Your task to perform on an android device: Open the Play Movies app and select the watchlist tab. Image 0: 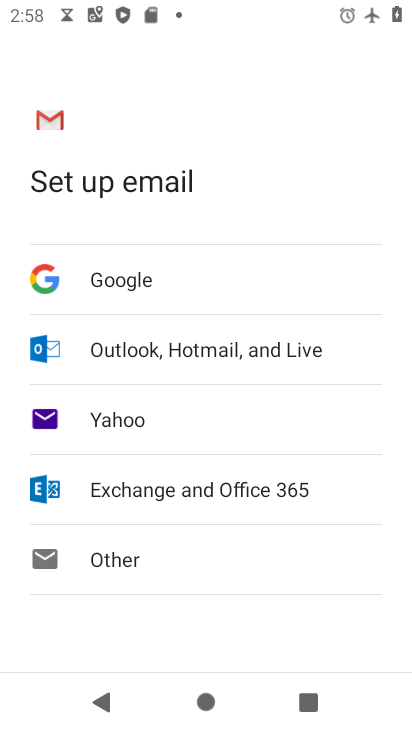
Step 0: press back button
Your task to perform on an android device: Open the Play Movies app and select the watchlist tab. Image 1: 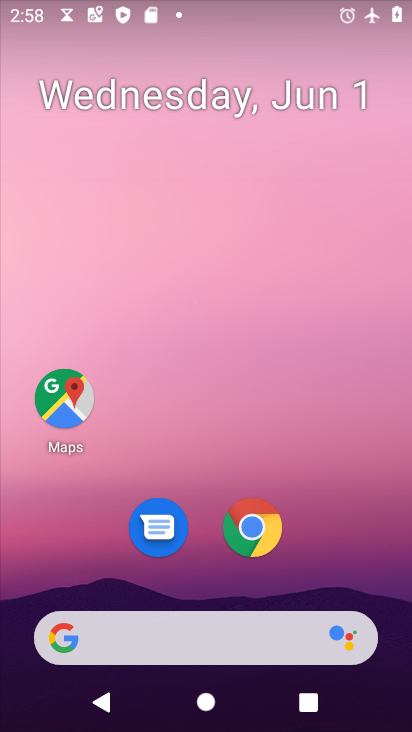
Step 1: drag from (311, 563) to (287, 208)
Your task to perform on an android device: Open the Play Movies app and select the watchlist tab. Image 2: 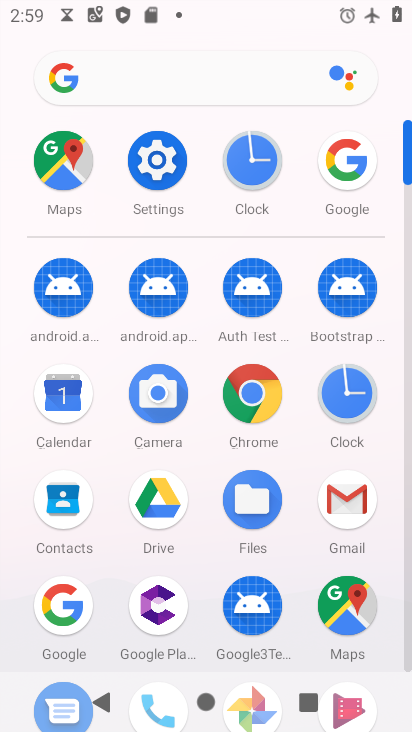
Step 2: drag from (288, 578) to (287, 298)
Your task to perform on an android device: Open the Play Movies app and select the watchlist tab. Image 3: 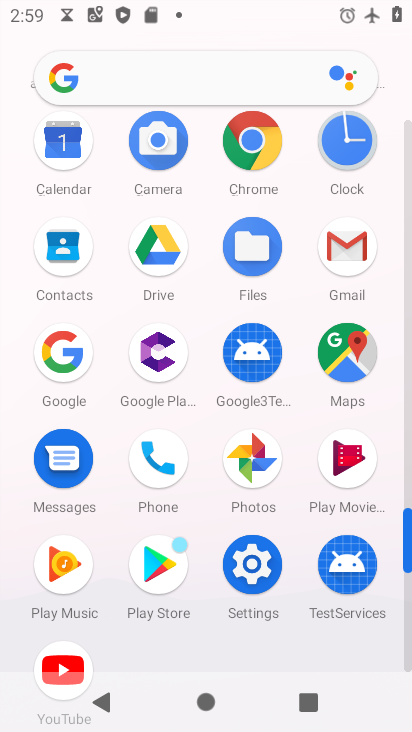
Step 3: click (348, 458)
Your task to perform on an android device: Open the Play Movies app and select the watchlist tab. Image 4: 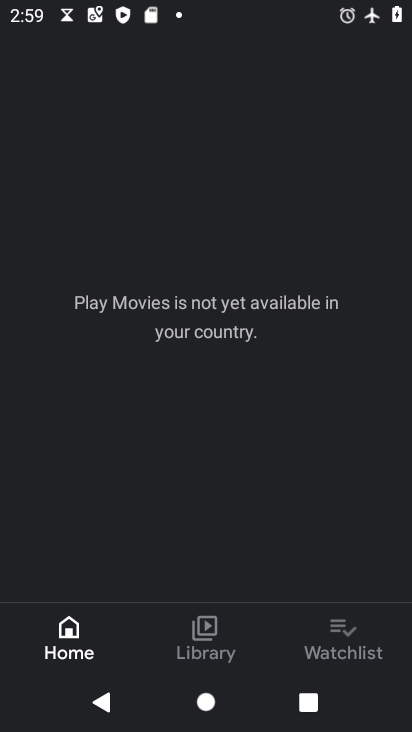
Step 4: click (345, 629)
Your task to perform on an android device: Open the Play Movies app and select the watchlist tab. Image 5: 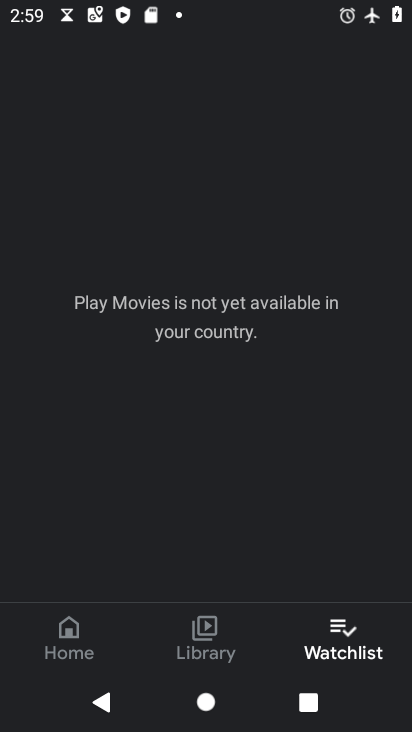
Step 5: task complete